Your task to perform on an android device: move a message to another label in the gmail app Image 0: 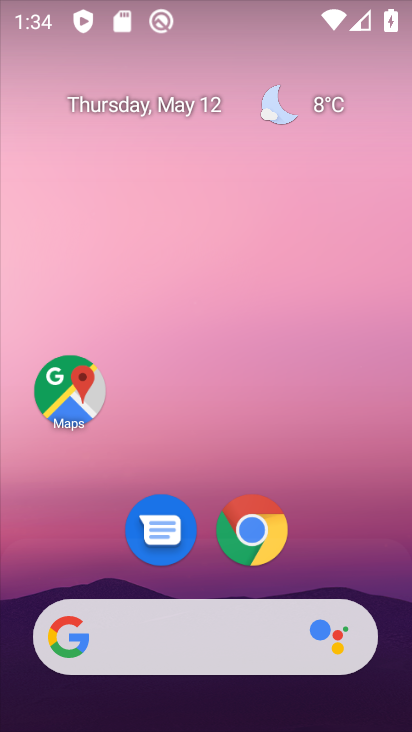
Step 0: drag from (166, 390) to (328, 99)
Your task to perform on an android device: move a message to another label in the gmail app Image 1: 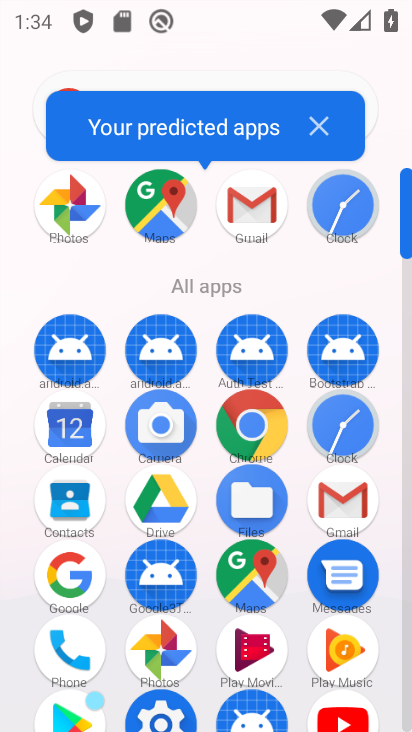
Step 1: click (354, 509)
Your task to perform on an android device: move a message to another label in the gmail app Image 2: 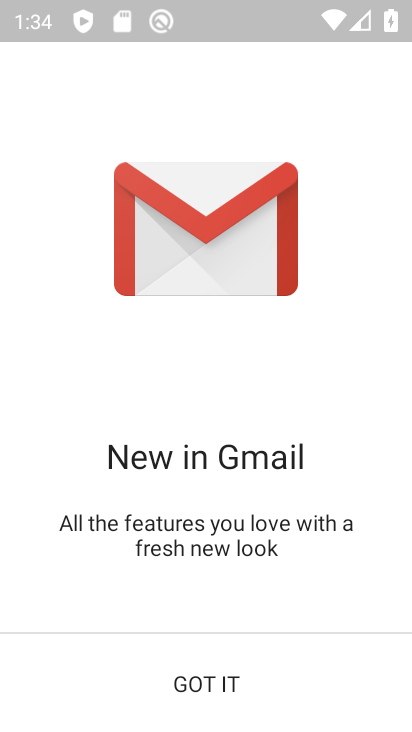
Step 2: click (240, 699)
Your task to perform on an android device: move a message to another label in the gmail app Image 3: 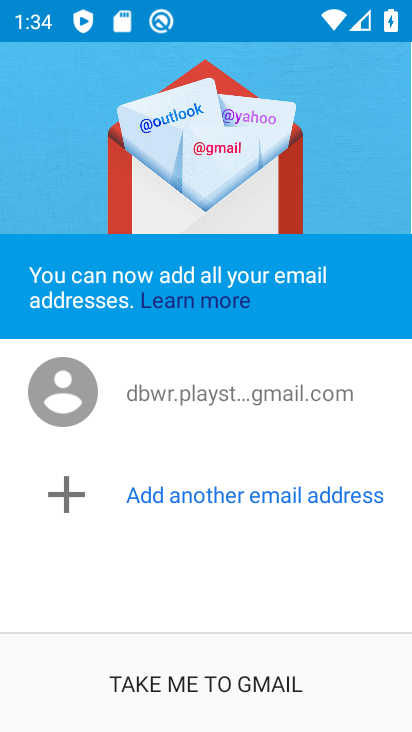
Step 3: click (217, 704)
Your task to perform on an android device: move a message to another label in the gmail app Image 4: 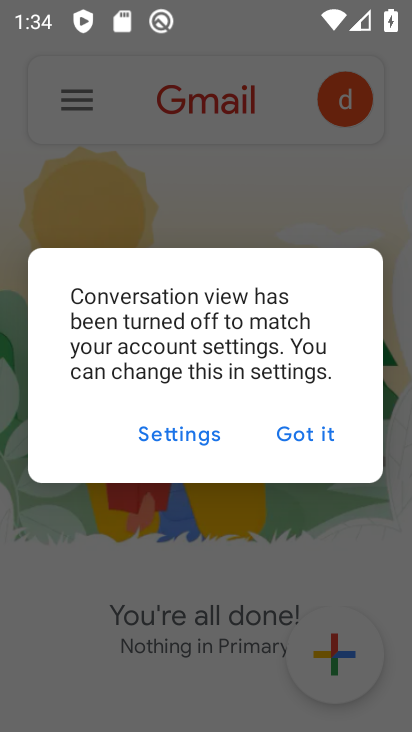
Step 4: click (293, 445)
Your task to perform on an android device: move a message to another label in the gmail app Image 5: 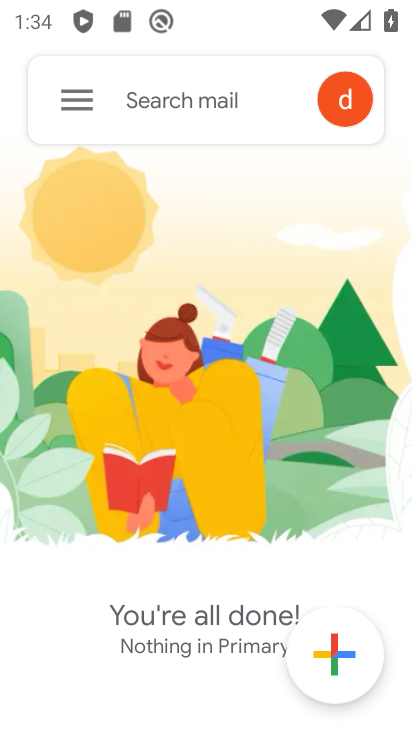
Step 5: click (65, 93)
Your task to perform on an android device: move a message to another label in the gmail app Image 6: 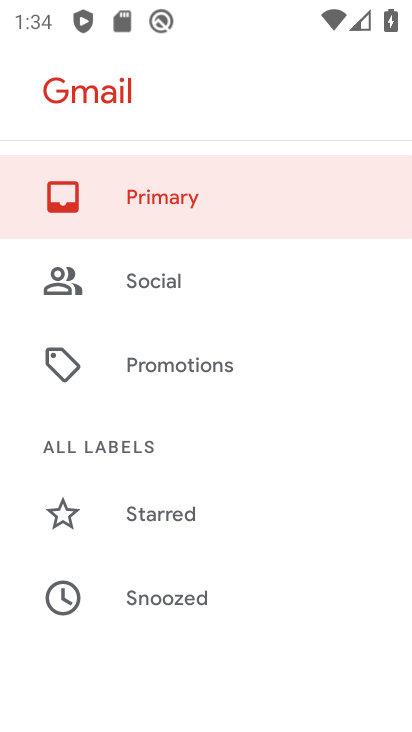
Step 6: drag from (183, 586) to (409, 95)
Your task to perform on an android device: move a message to another label in the gmail app Image 7: 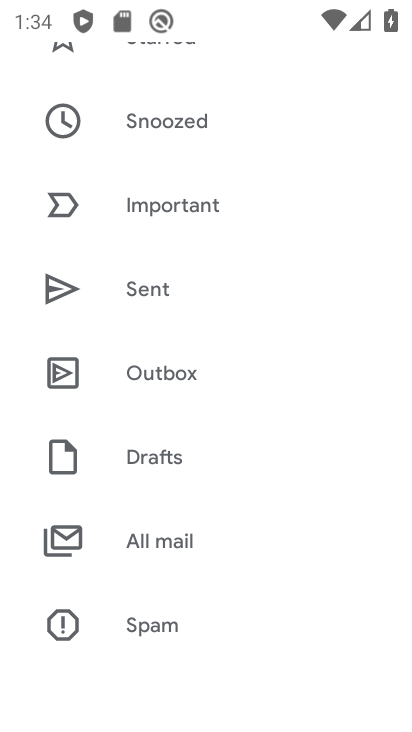
Step 7: click (141, 540)
Your task to perform on an android device: move a message to another label in the gmail app Image 8: 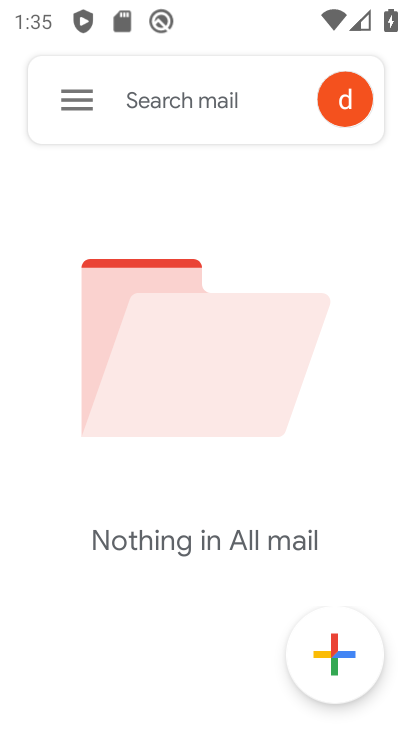
Step 8: task complete